Your task to perform on an android device: See recent photos Image 0: 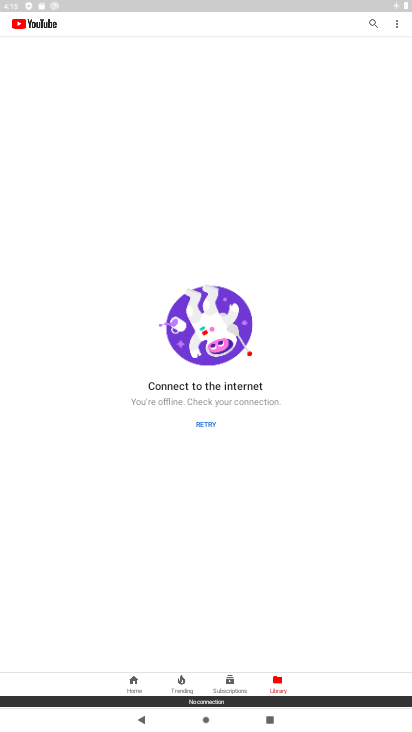
Step 0: press home button
Your task to perform on an android device: See recent photos Image 1: 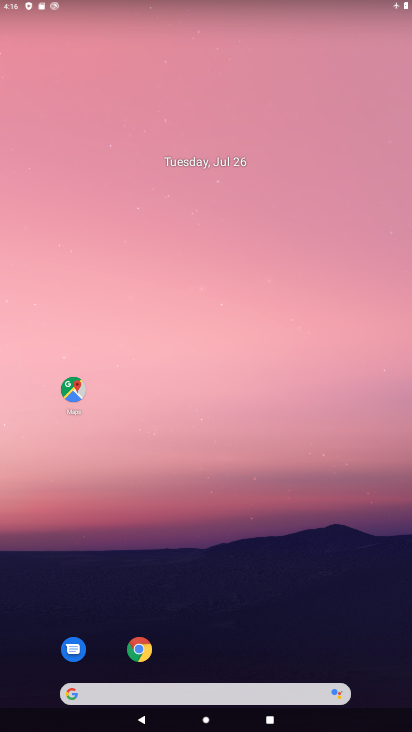
Step 1: drag from (181, 643) to (184, 120)
Your task to perform on an android device: See recent photos Image 2: 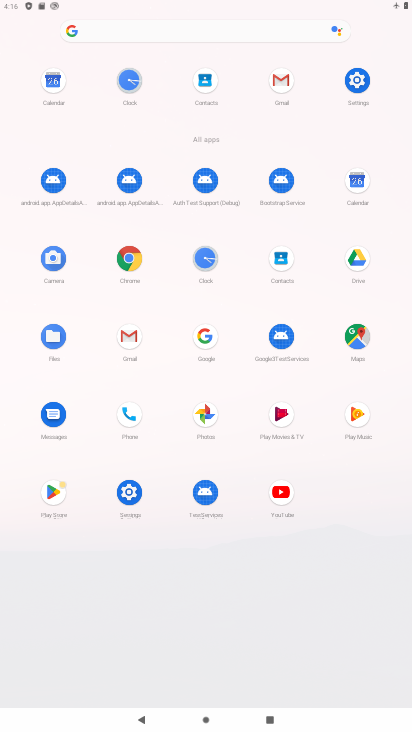
Step 2: click (197, 404)
Your task to perform on an android device: See recent photos Image 3: 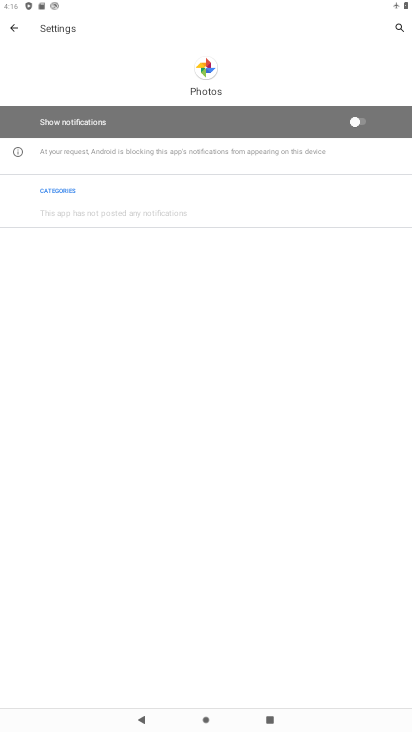
Step 3: click (15, 29)
Your task to perform on an android device: See recent photos Image 4: 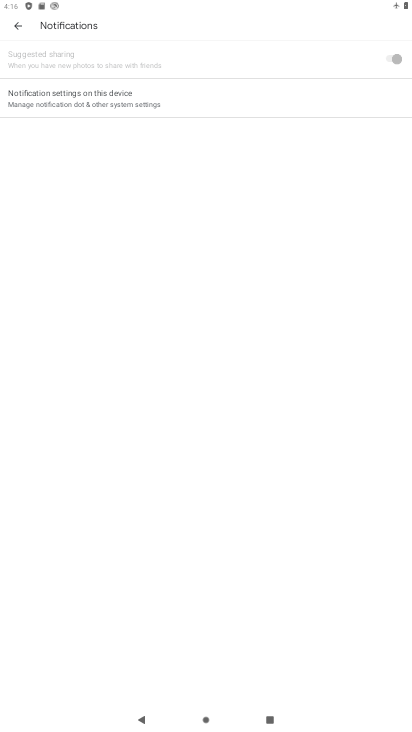
Step 4: click (15, 29)
Your task to perform on an android device: See recent photos Image 5: 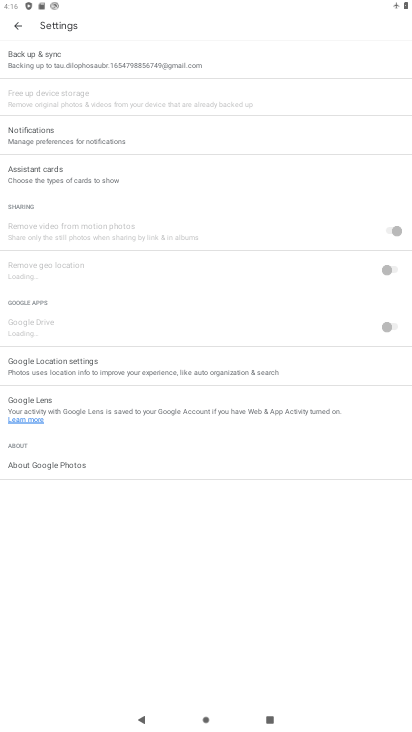
Step 5: click (12, 32)
Your task to perform on an android device: See recent photos Image 6: 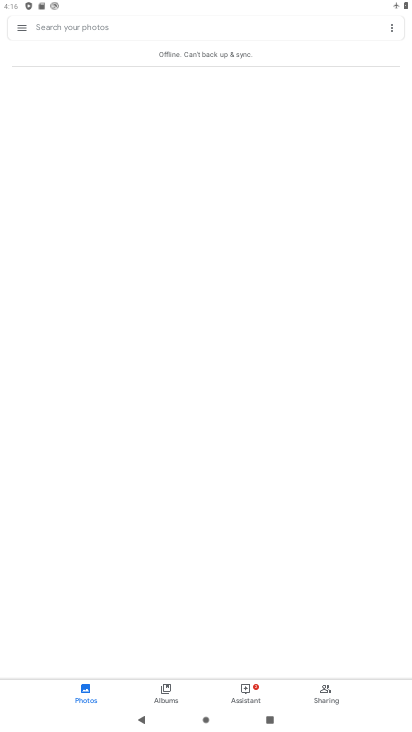
Step 6: task complete